Your task to perform on an android device: clear history in the chrome app Image 0: 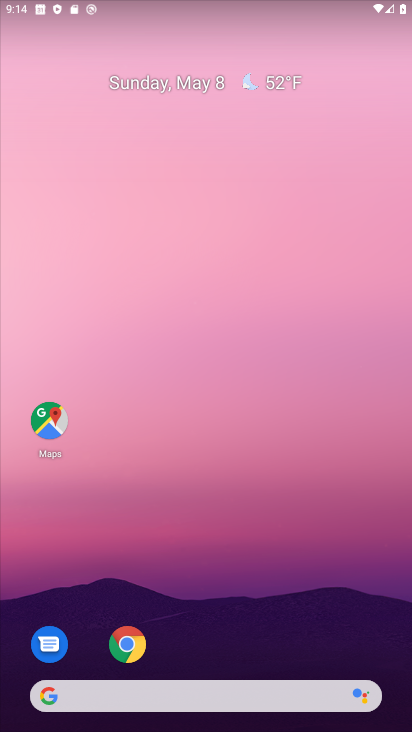
Step 0: drag from (175, 657) to (274, 112)
Your task to perform on an android device: clear history in the chrome app Image 1: 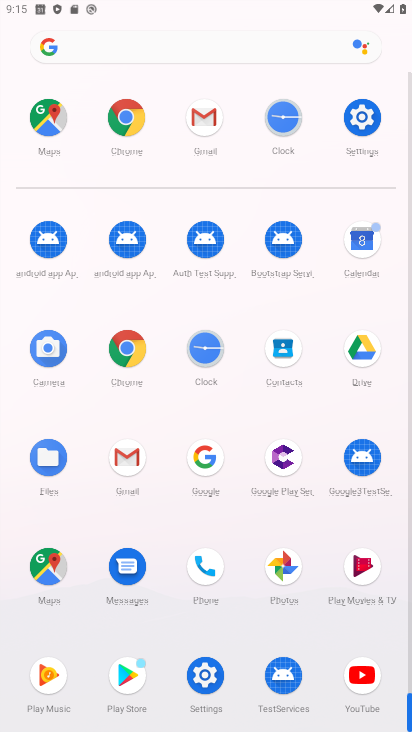
Step 1: click (126, 343)
Your task to perform on an android device: clear history in the chrome app Image 2: 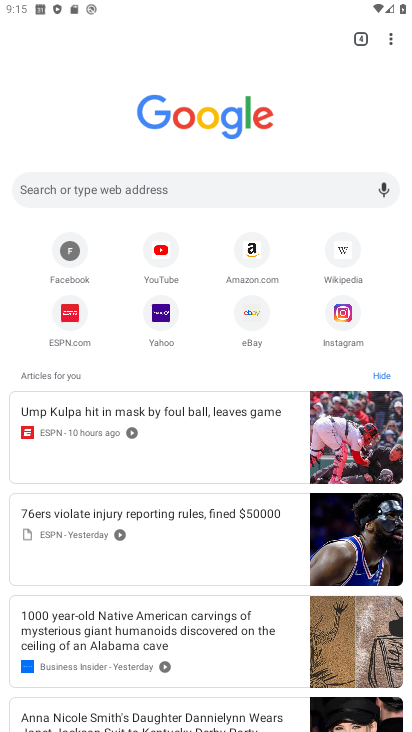
Step 2: drag from (392, 42) to (281, 270)
Your task to perform on an android device: clear history in the chrome app Image 3: 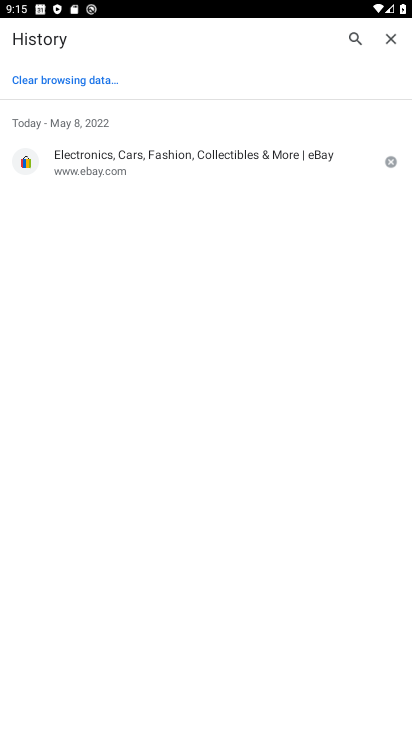
Step 3: click (71, 76)
Your task to perform on an android device: clear history in the chrome app Image 4: 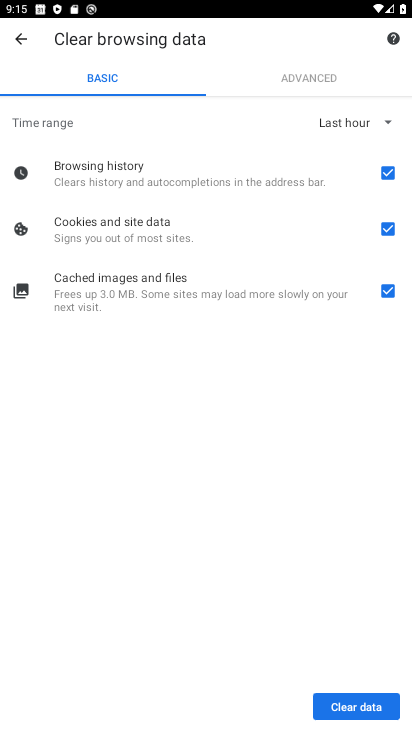
Step 4: click (337, 692)
Your task to perform on an android device: clear history in the chrome app Image 5: 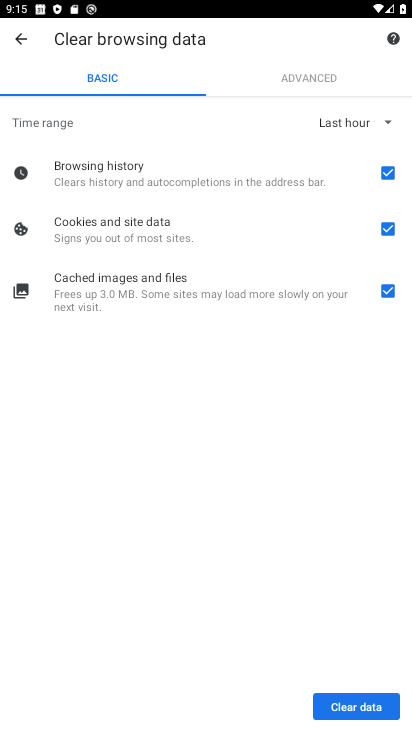
Step 5: click (346, 705)
Your task to perform on an android device: clear history in the chrome app Image 6: 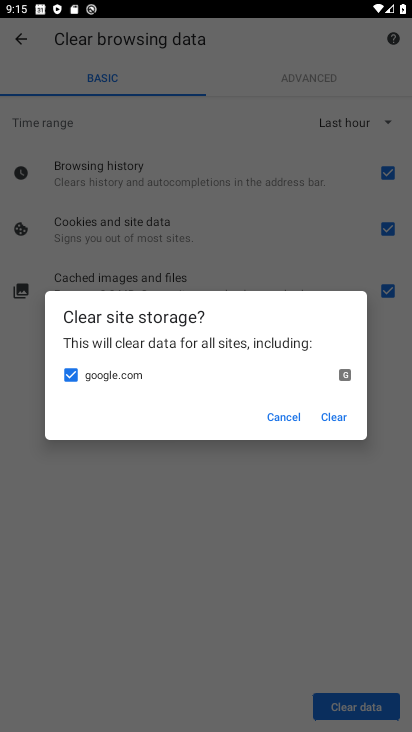
Step 6: click (330, 420)
Your task to perform on an android device: clear history in the chrome app Image 7: 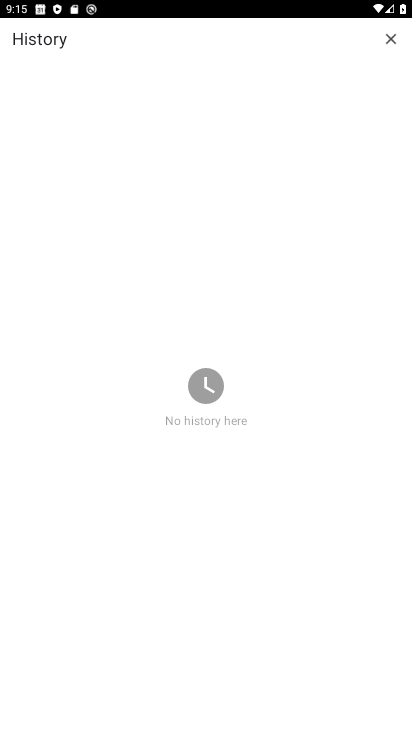
Step 7: task complete